Your task to perform on an android device: Go to Google maps Image 0: 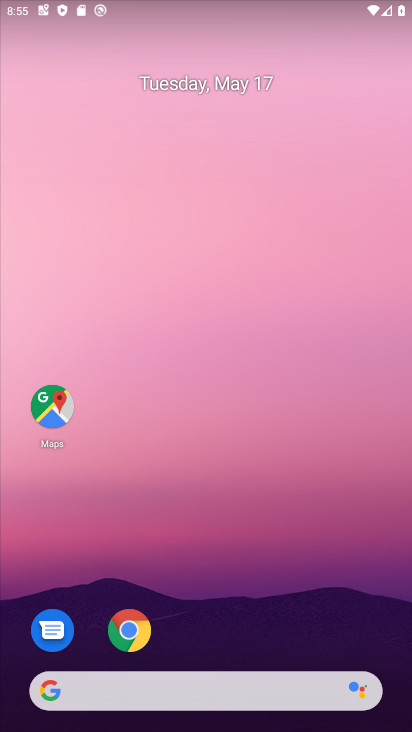
Step 0: click (38, 426)
Your task to perform on an android device: Go to Google maps Image 1: 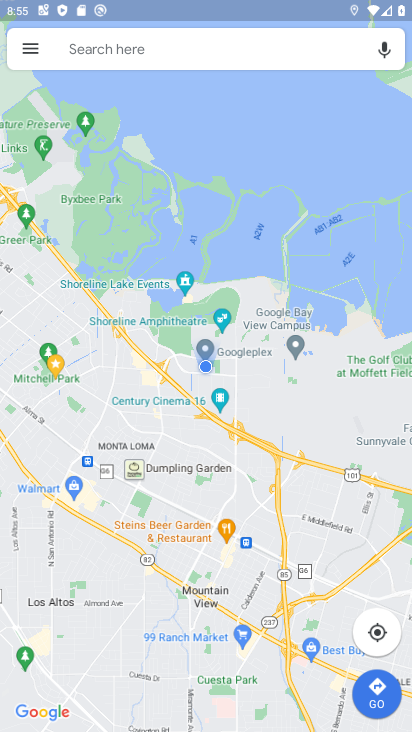
Step 1: task complete